Your task to perform on an android device: Open Youtube and go to "Your channel" Image 0: 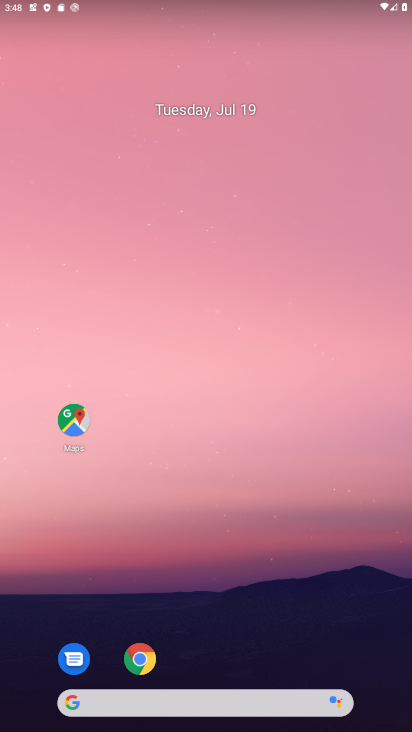
Step 0: drag from (276, 584) to (154, 24)
Your task to perform on an android device: Open Youtube and go to "Your channel" Image 1: 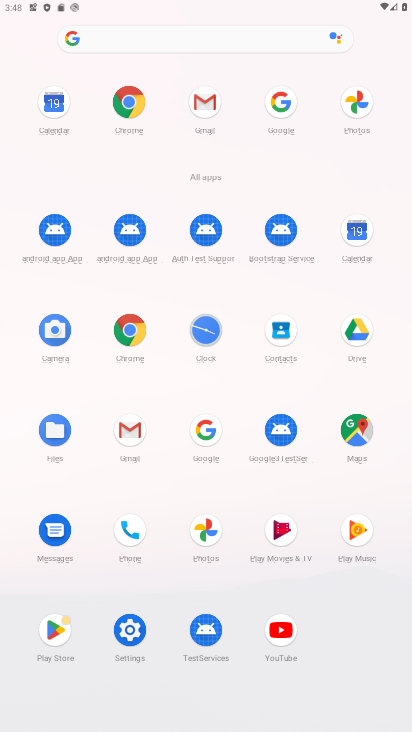
Step 1: click (266, 660)
Your task to perform on an android device: Open Youtube and go to "Your channel" Image 2: 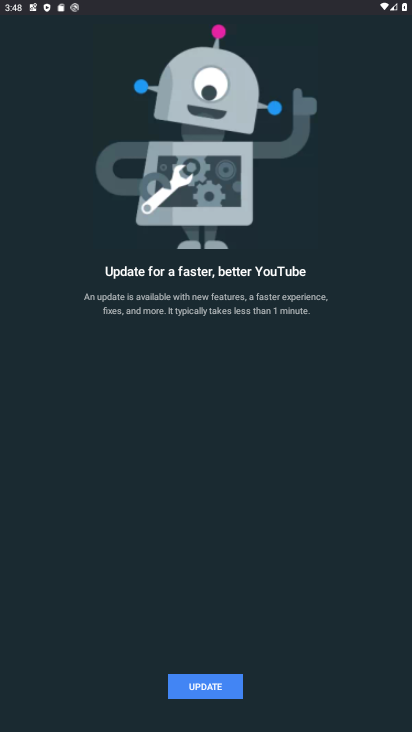
Step 2: click (215, 685)
Your task to perform on an android device: Open Youtube and go to "Your channel" Image 3: 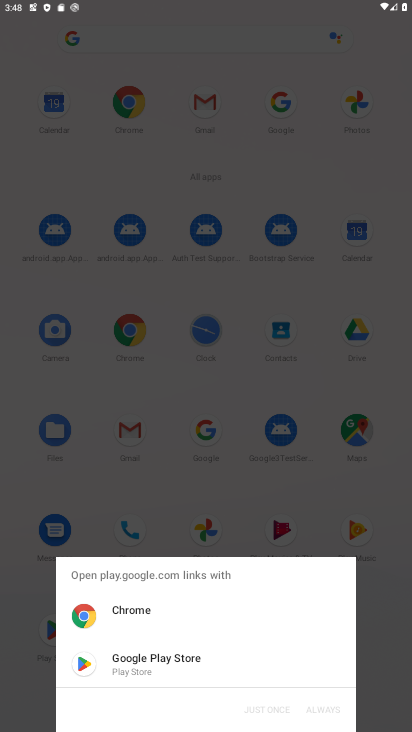
Step 3: click (154, 651)
Your task to perform on an android device: Open Youtube and go to "Your channel" Image 4: 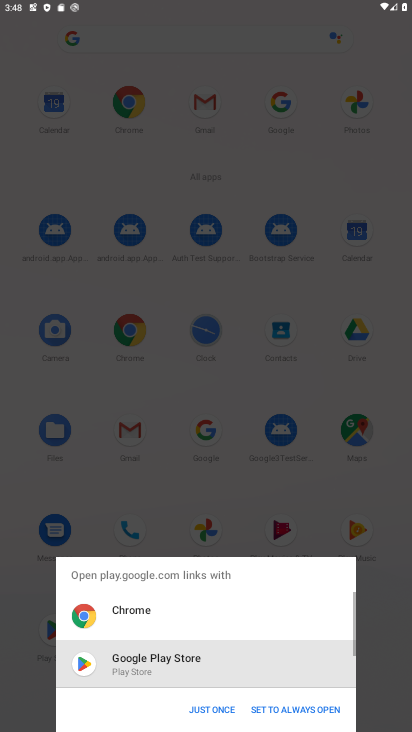
Step 4: click (197, 712)
Your task to perform on an android device: Open Youtube and go to "Your channel" Image 5: 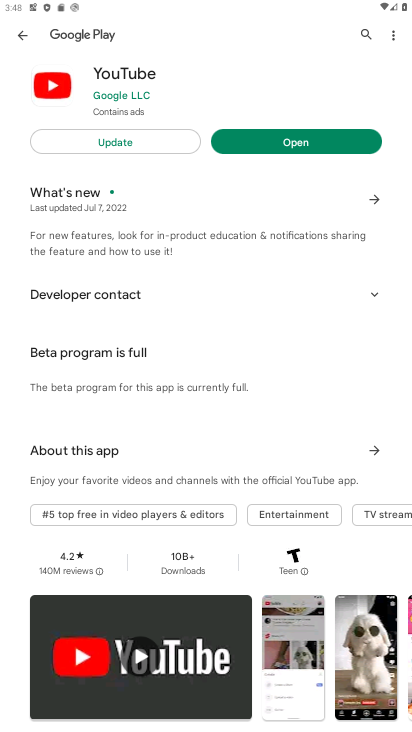
Step 5: click (275, 142)
Your task to perform on an android device: Open Youtube and go to "Your channel" Image 6: 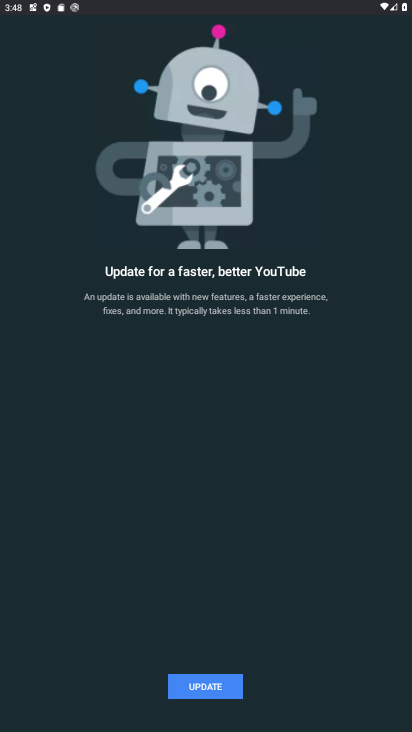
Step 6: click (225, 685)
Your task to perform on an android device: Open Youtube and go to "Your channel" Image 7: 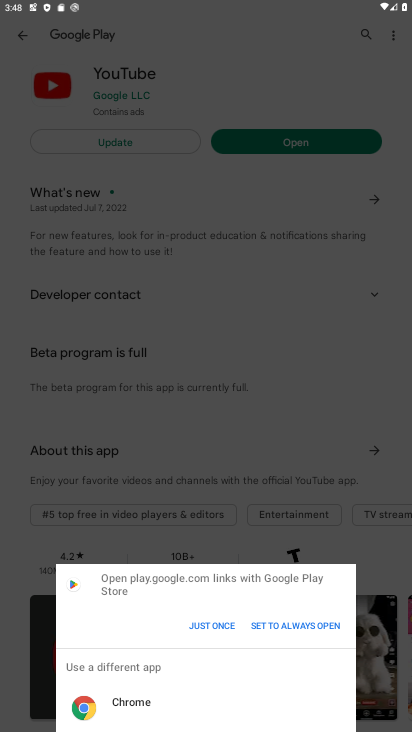
Step 7: click (213, 616)
Your task to perform on an android device: Open Youtube and go to "Your channel" Image 8: 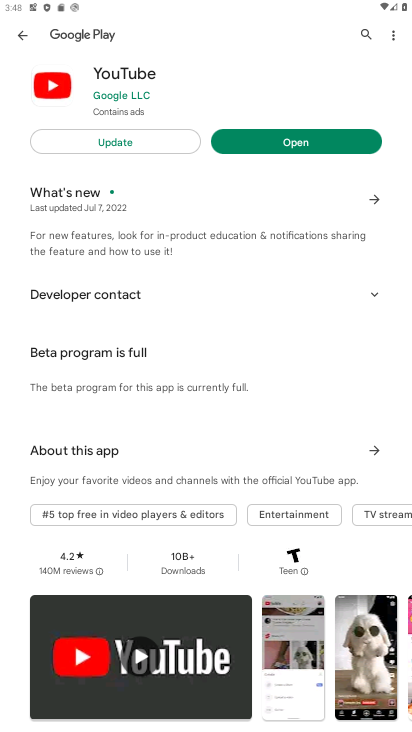
Step 8: click (99, 152)
Your task to perform on an android device: Open Youtube and go to "Your channel" Image 9: 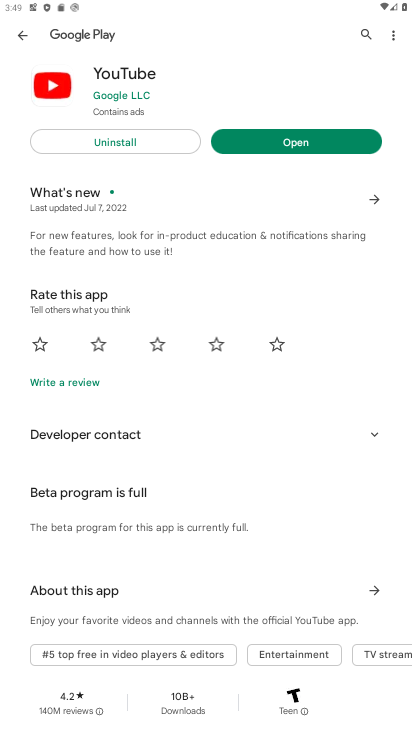
Step 9: click (297, 149)
Your task to perform on an android device: Open Youtube and go to "Your channel" Image 10: 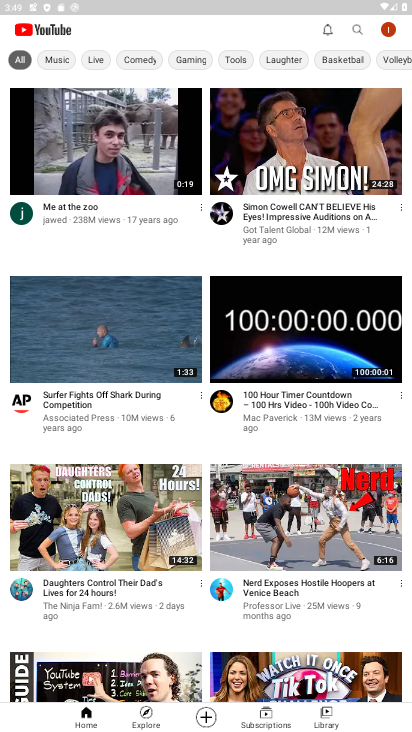
Step 10: click (379, 33)
Your task to perform on an android device: Open Youtube and go to "Your channel" Image 11: 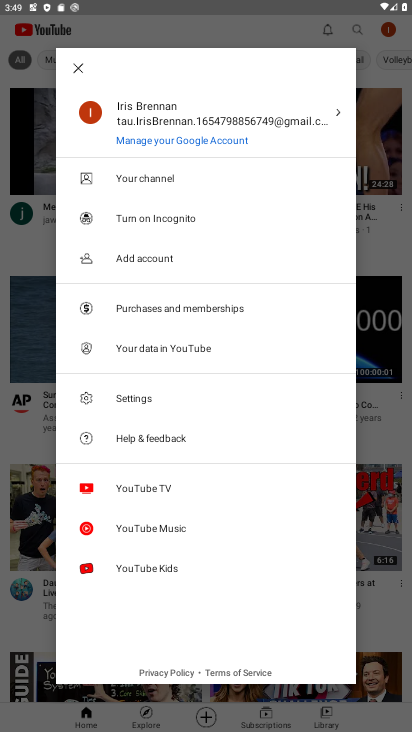
Step 11: click (146, 168)
Your task to perform on an android device: Open Youtube and go to "Your channel" Image 12: 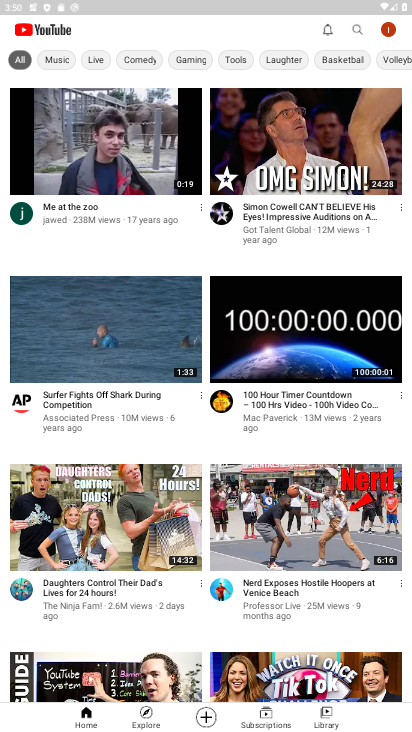
Step 12: task complete